Your task to perform on an android device: turn on javascript in the chrome app Image 0: 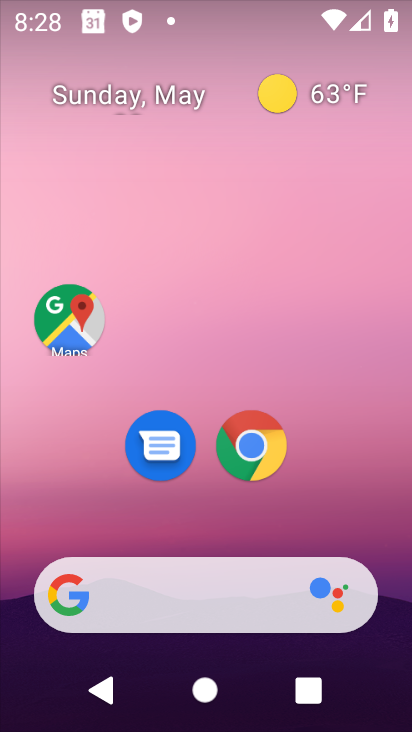
Step 0: drag from (385, 532) to (392, 140)
Your task to perform on an android device: turn on javascript in the chrome app Image 1: 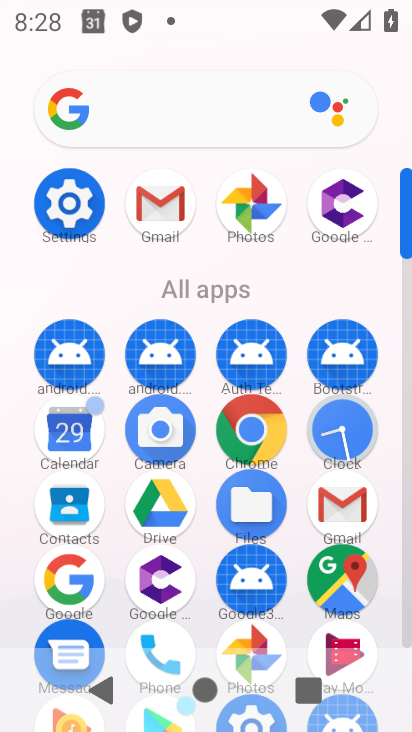
Step 1: click (259, 443)
Your task to perform on an android device: turn on javascript in the chrome app Image 2: 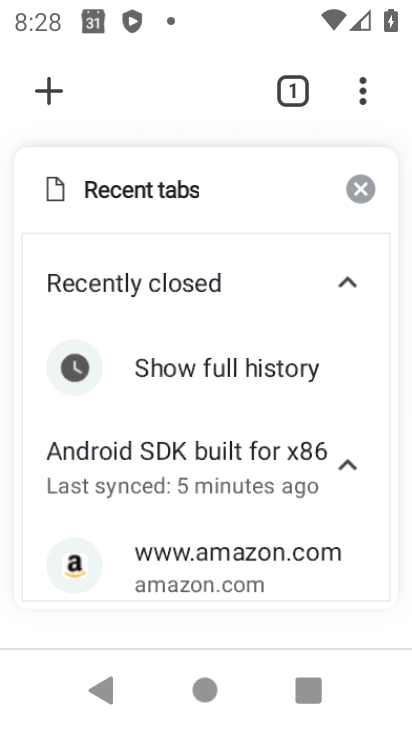
Step 2: click (365, 103)
Your task to perform on an android device: turn on javascript in the chrome app Image 3: 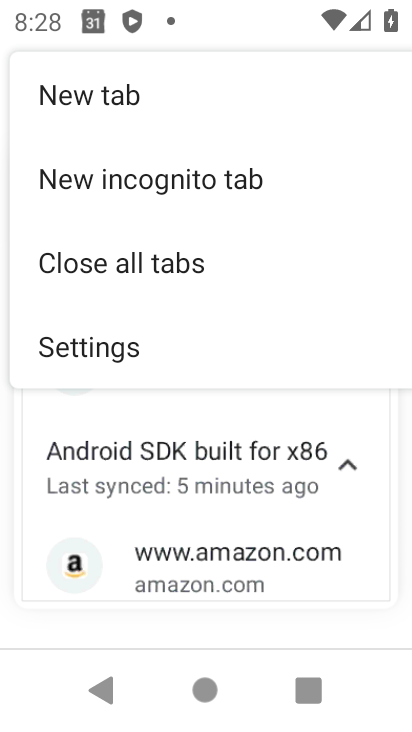
Step 3: click (160, 348)
Your task to perform on an android device: turn on javascript in the chrome app Image 4: 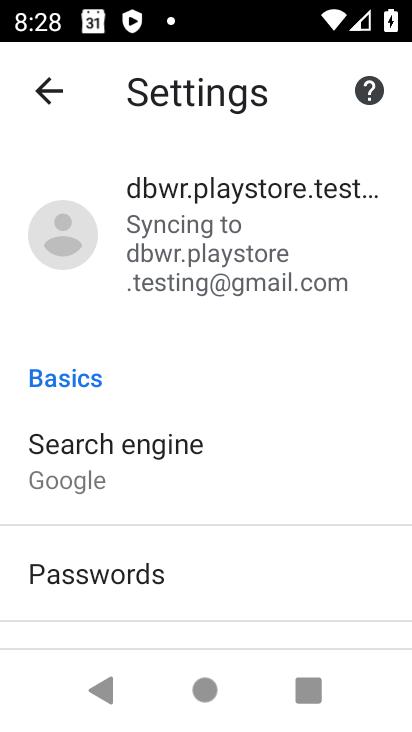
Step 4: drag from (236, 502) to (274, 322)
Your task to perform on an android device: turn on javascript in the chrome app Image 5: 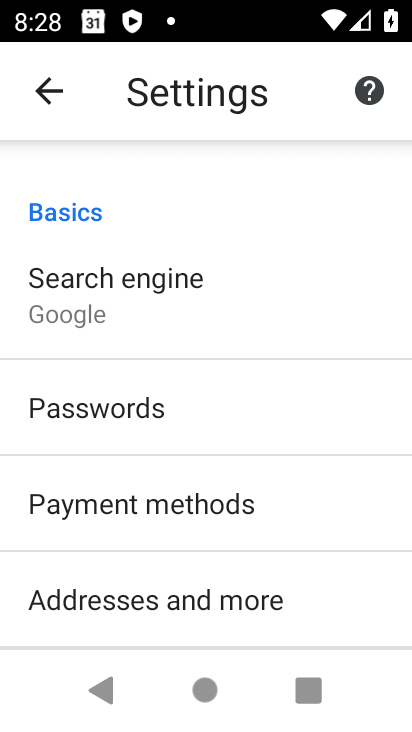
Step 5: drag from (305, 592) to (338, 358)
Your task to perform on an android device: turn on javascript in the chrome app Image 6: 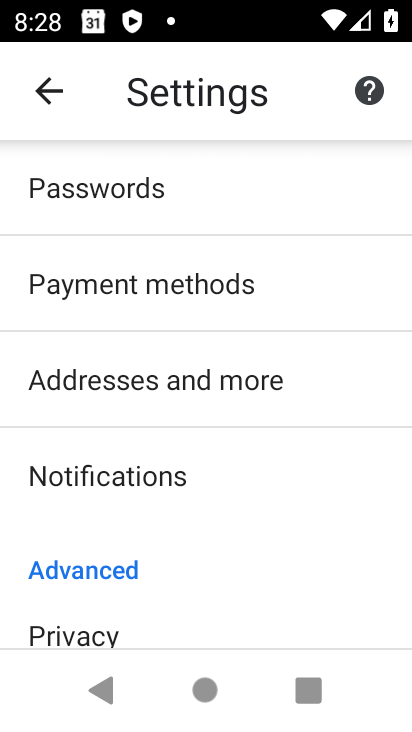
Step 6: drag from (314, 562) to (313, 371)
Your task to perform on an android device: turn on javascript in the chrome app Image 7: 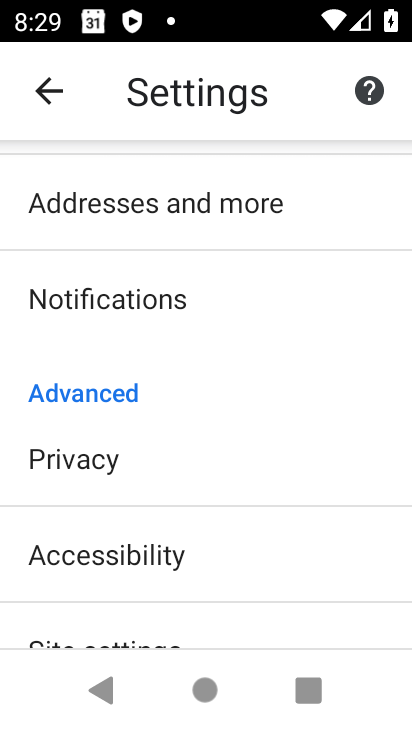
Step 7: drag from (270, 559) to (285, 439)
Your task to perform on an android device: turn on javascript in the chrome app Image 8: 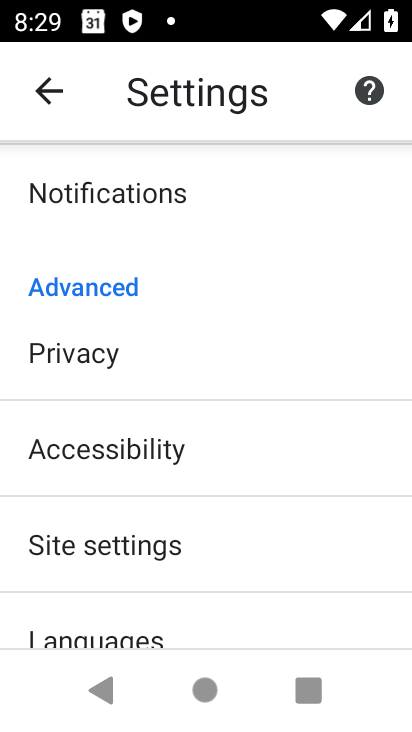
Step 8: drag from (277, 570) to (297, 425)
Your task to perform on an android device: turn on javascript in the chrome app Image 9: 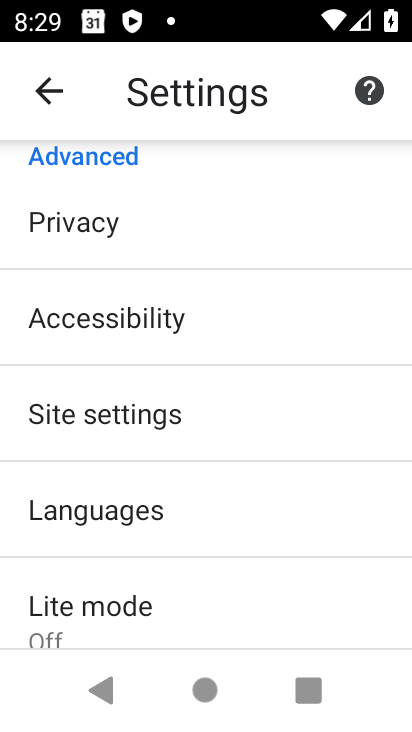
Step 9: click (254, 433)
Your task to perform on an android device: turn on javascript in the chrome app Image 10: 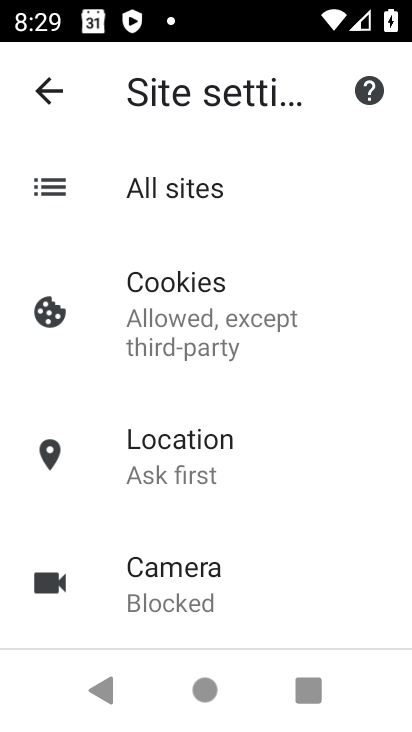
Step 10: drag from (278, 507) to (312, 402)
Your task to perform on an android device: turn on javascript in the chrome app Image 11: 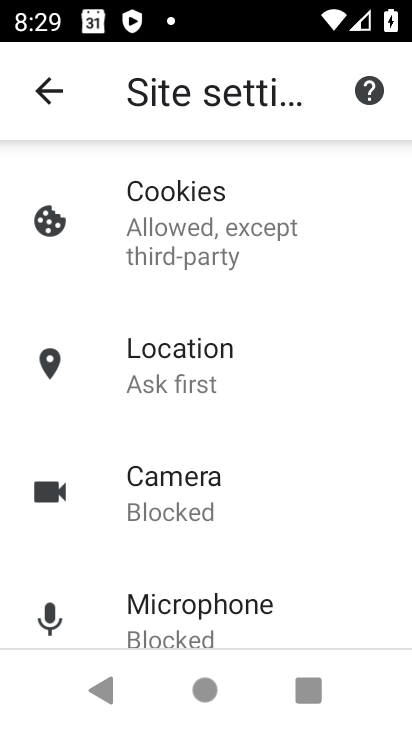
Step 11: drag from (322, 569) to (341, 456)
Your task to perform on an android device: turn on javascript in the chrome app Image 12: 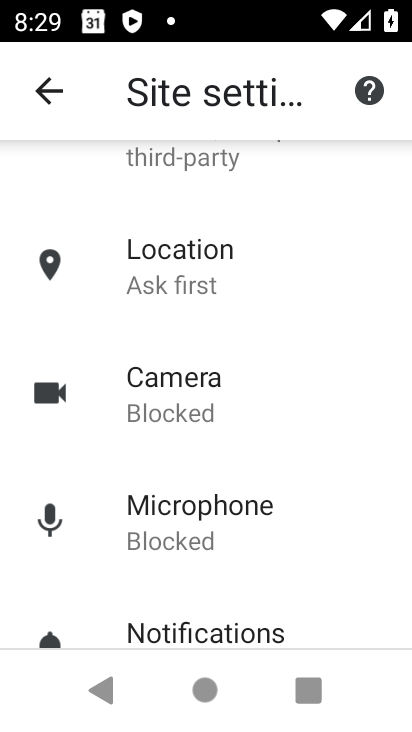
Step 12: drag from (330, 553) to (350, 429)
Your task to perform on an android device: turn on javascript in the chrome app Image 13: 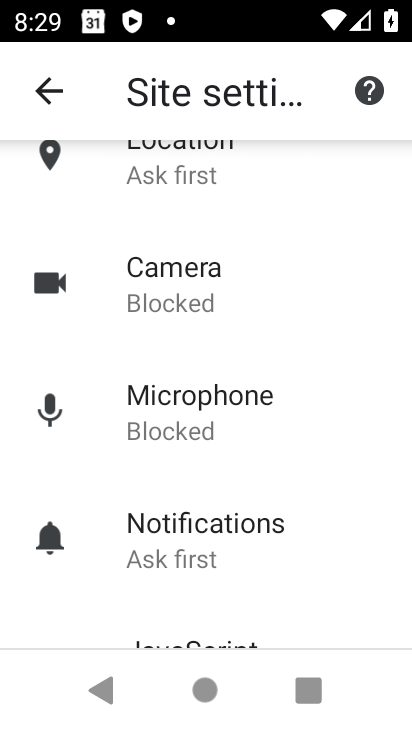
Step 13: drag from (327, 563) to (332, 450)
Your task to perform on an android device: turn on javascript in the chrome app Image 14: 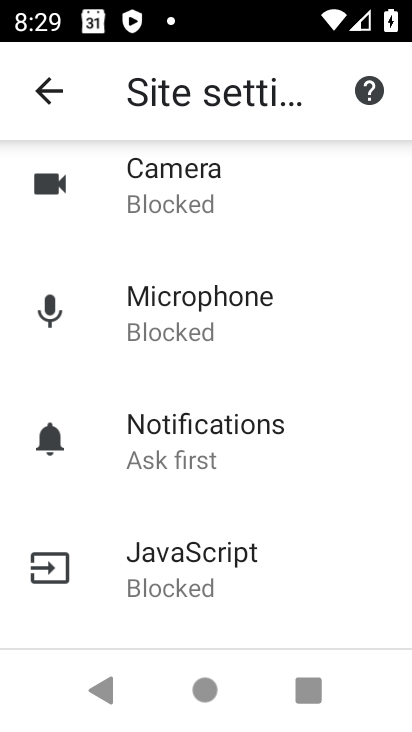
Step 14: click (205, 577)
Your task to perform on an android device: turn on javascript in the chrome app Image 15: 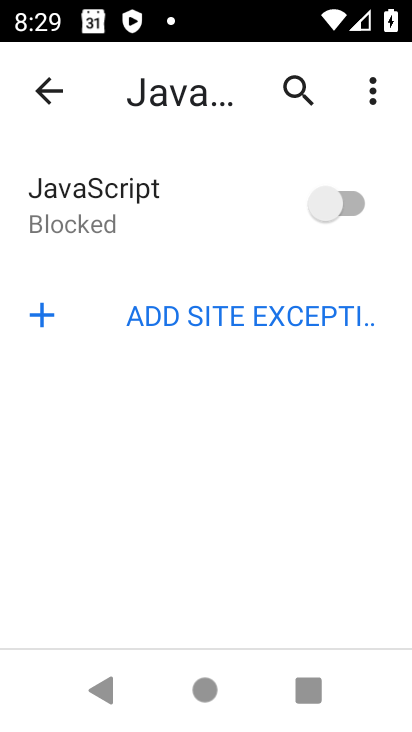
Step 15: click (327, 205)
Your task to perform on an android device: turn on javascript in the chrome app Image 16: 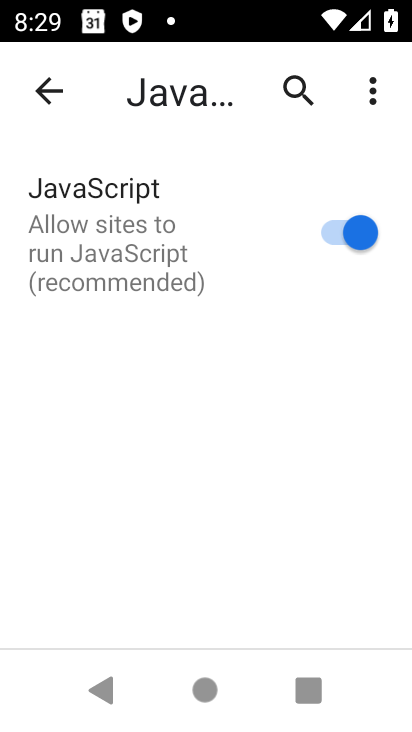
Step 16: task complete